Your task to perform on an android device: change the clock display to show seconds Image 0: 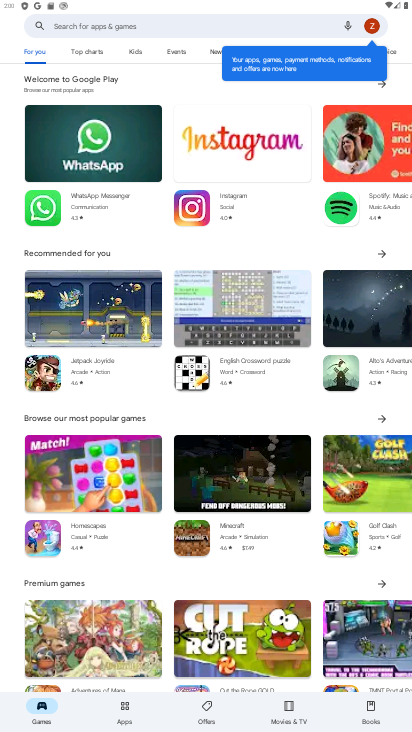
Step 0: press home button
Your task to perform on an android device: change the clock display to show seconds Image 1: 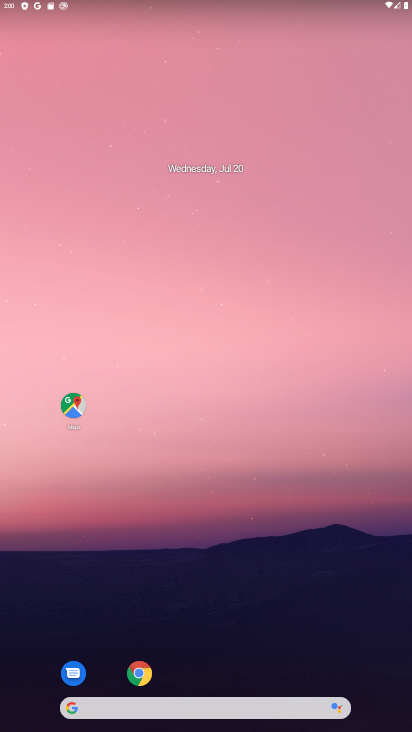
Step 1: drag from (209, 693) to (265, 128)
Your task to perform on an android device: change the clock display to show seconds Image 2: 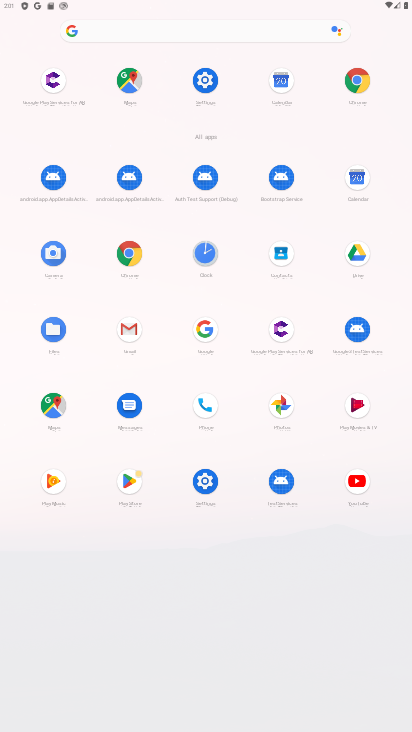
Step 2: click (197, 258)
Your task to perform on an android device: change the clock display to show seconds Image 3: 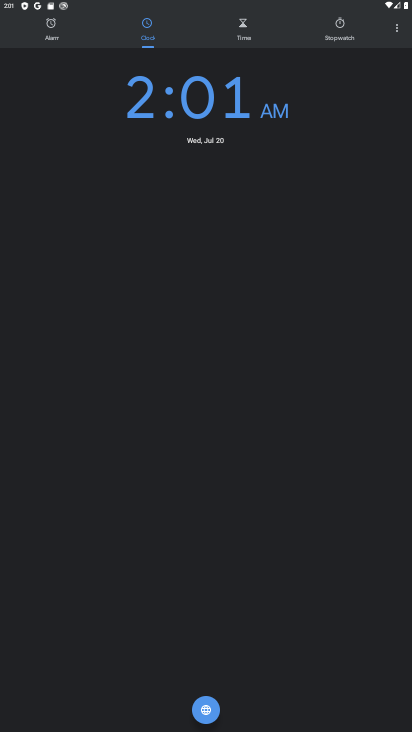
Step 3: click (390, 25)
Your task to perform on an android device: change the clock display to show seconds Image 4: 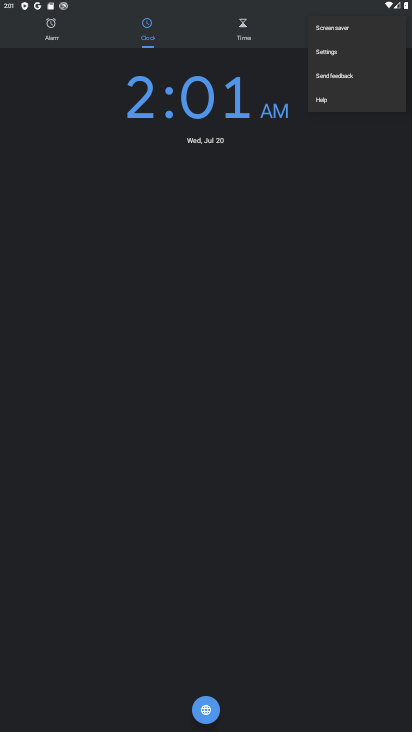
Step 4: click (348, 51)
Your task to perform on an android device: change the clock display to show seconds Image 5: 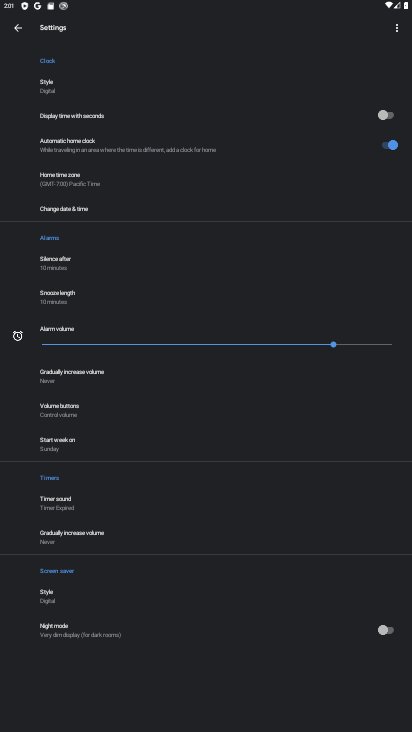
Step 5: click (378, 113)
Your task to perform on an android device: change the clock display to show seconds Image 6: 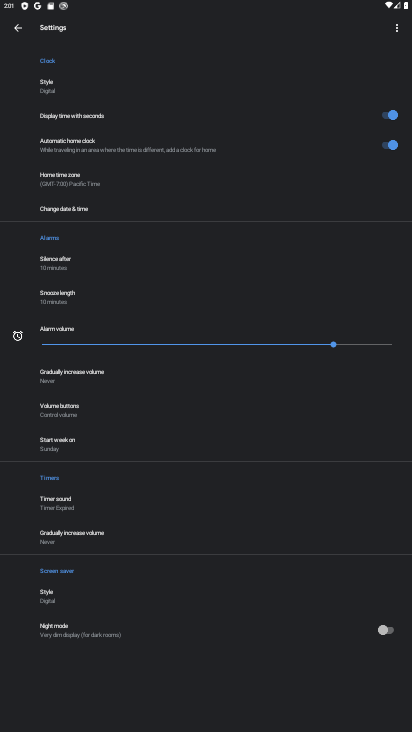
Step 6: task complete